Your task to perform on an android device: Open display settings Image 0: 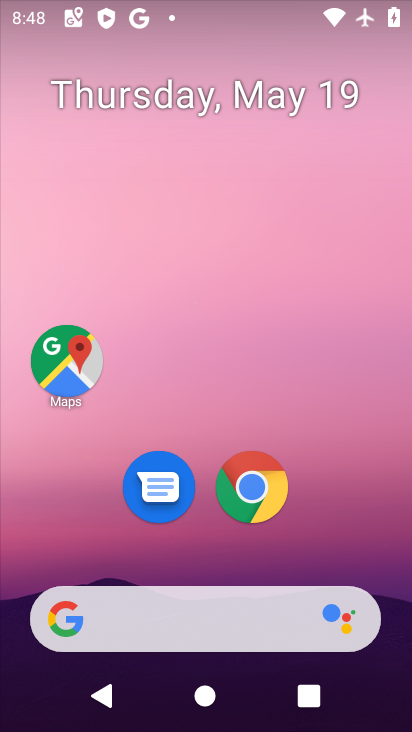
Step 0: drag from (178, 567) to (116, 78)
Your task to perform on an android device: Open display settings Image 1: 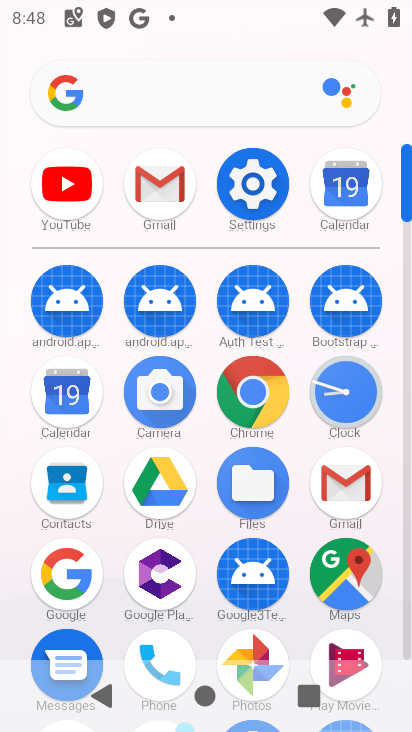
Step 1: click (258, 182)
Your task to perform on an android device: Open display settings Image 2: 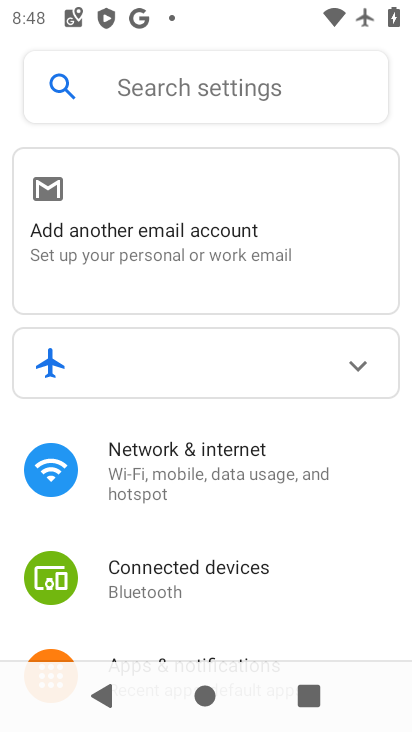
Step 2: drag from (183, 545) to (126, 95)
Your task to perform on an android device: Open display settings Image 3: 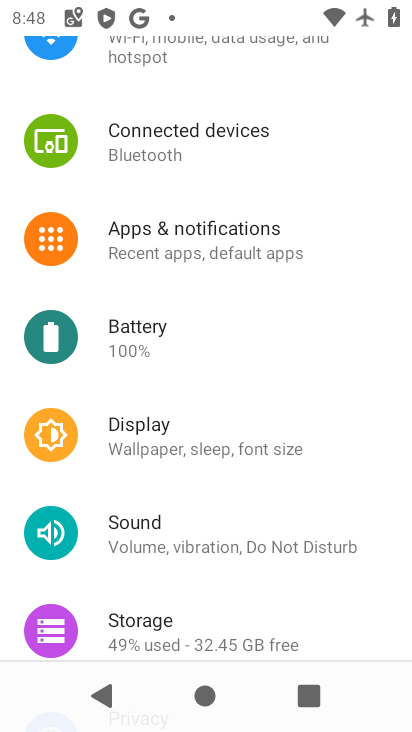
Step 3: click (160, 411)
Your task to perform on an android device: Open display settings Image 4: 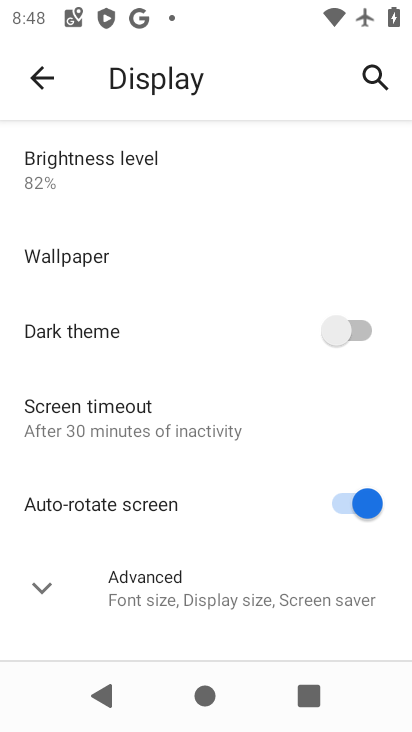
Step 4: click (160, 588)
Your task to perform on an android device: Open display settings Image 5: 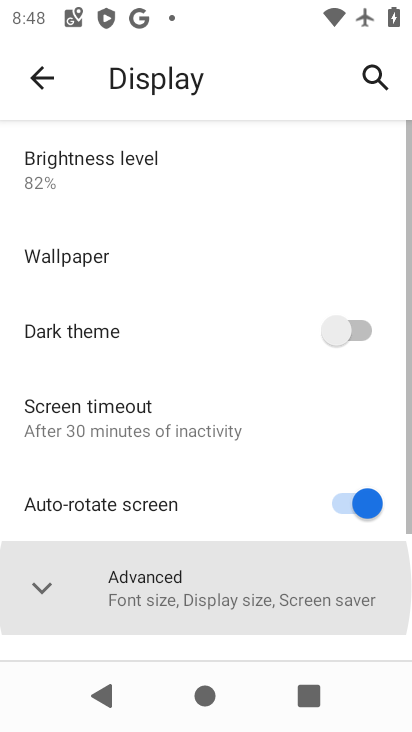
Step 5: task complete